Your task to perform on an android device: What's the weather going to be tomorrow? Image 0: 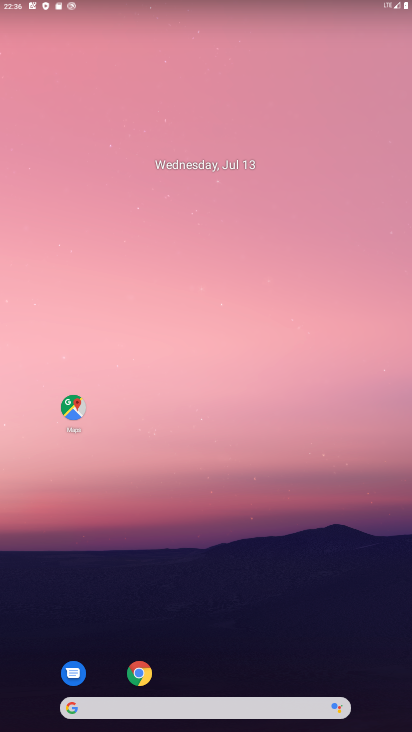
Step 0: drag from (259, 18) to (342, 6)
Your task to perform on an android device: What's the weather going to be tomorrow? Image 1: 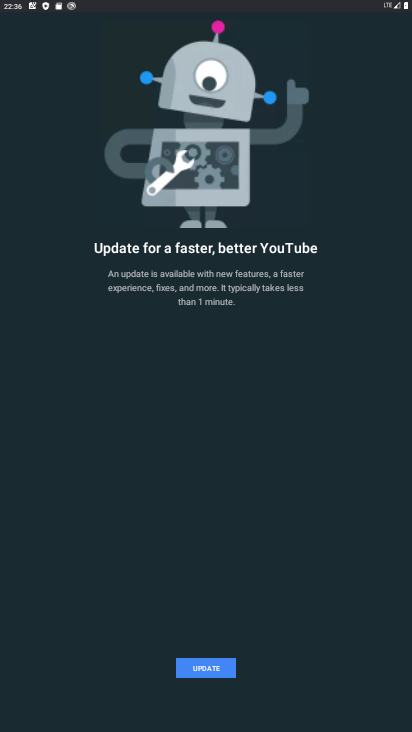
Step 1: press home button
Your task to perform on an android device: What's the weather going to be tomorrow? Image 2: 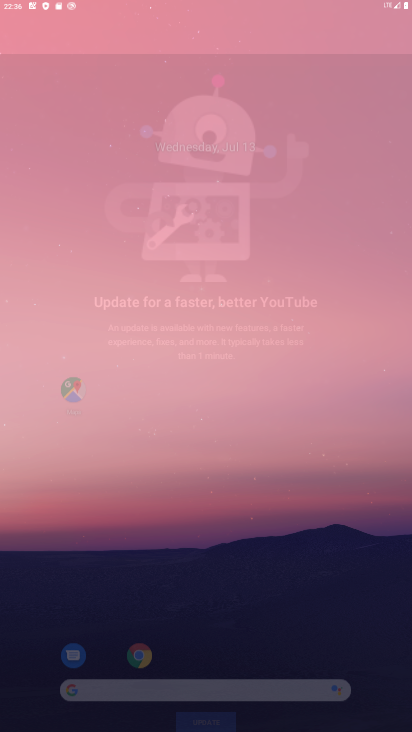
Step 2: drag from (133, 629) to (198, 199)
Your task to perform on an android device: What's the weather going to be tomorrow? Image 3: 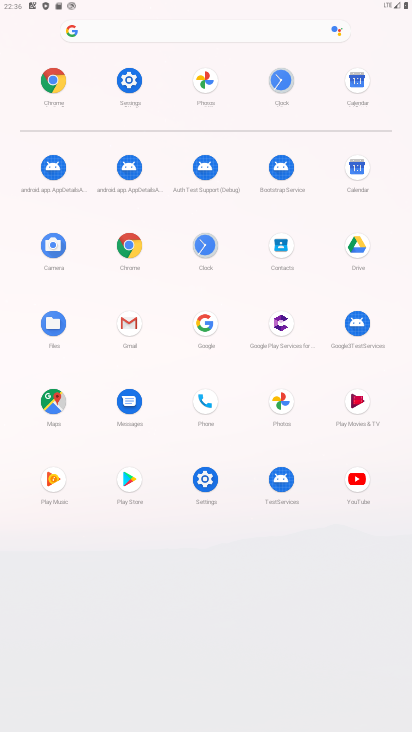
Step 3: click (150, 33)
Your task to perform on an android device: What's the weather going to be tomorrow? Image 4: 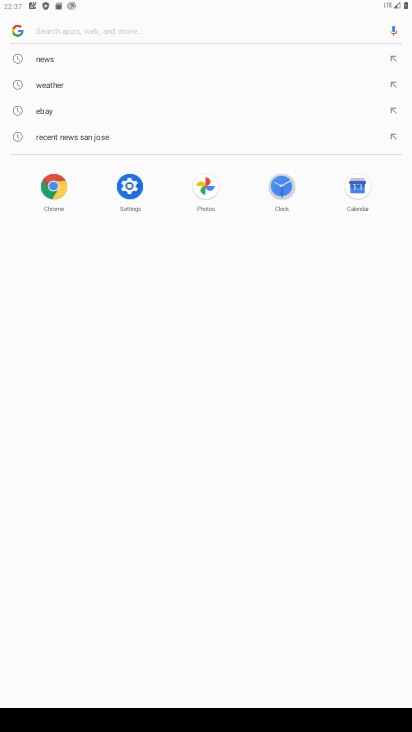
Step 4: type "What's the weather going to be tomorrow?"
Your task to perform on an android device: What's the weather going to be tomorrow? Image 5: 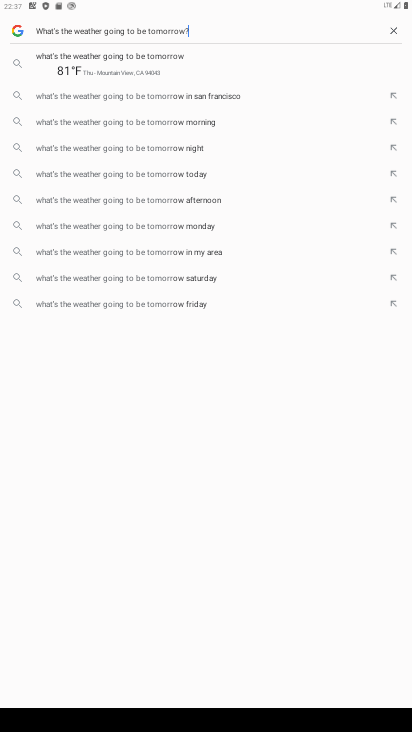
Step 5: type ""
Your task to perform on an android device: What's the weather going to be tomorrow? Image 6: 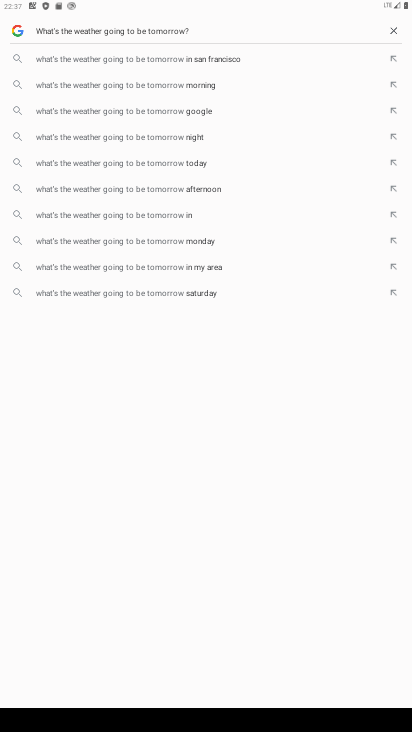
Step 6: click (173, 157)
Your task to perform on an android device: What's the weather going to be tomorrow? Image 7: 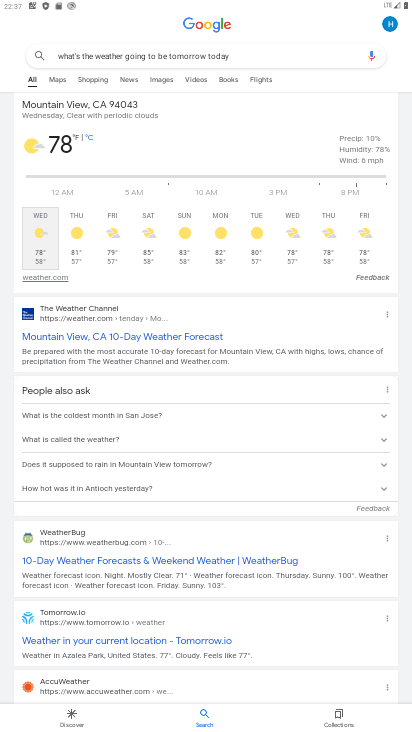
Step 7: task complete